Your task to perform on an android device: refresh tabs in the chrome app Image 0: 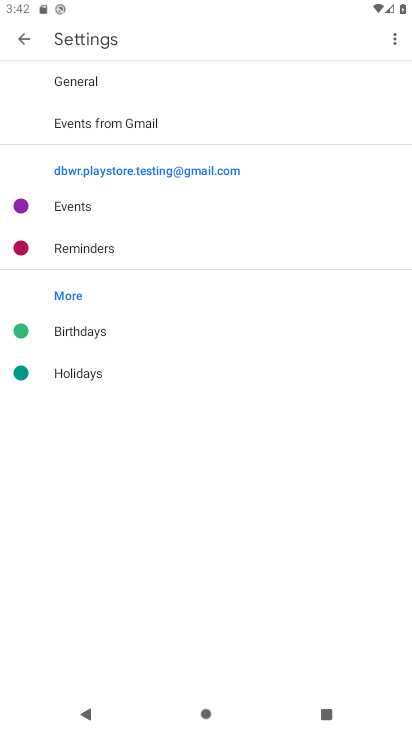
Step 0: press home button
Your task to perform on an android device: refresh tabs in the chrome app Image 1: 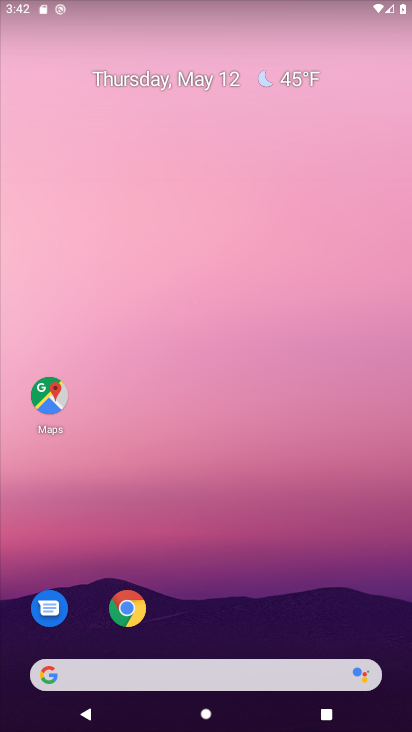
Step 1: drag from (222, 564) to (242, 105)
Your task to perform on an android device: refresh tabs in the chrome app Image 2: 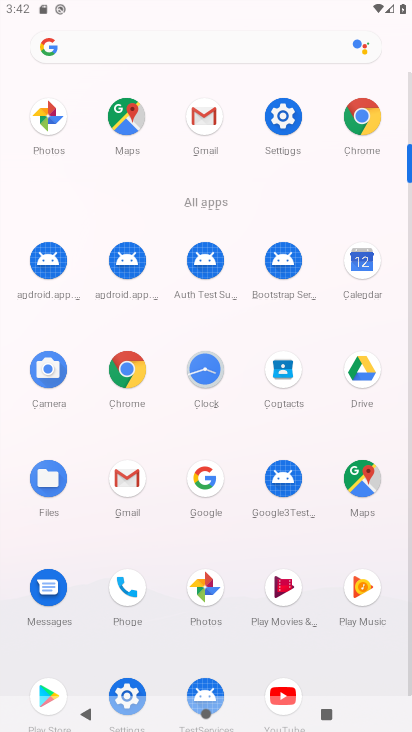
Step 2: click (356, 110)
Your task to perform on an android device: refresh tabs in the chrome app Image 3: 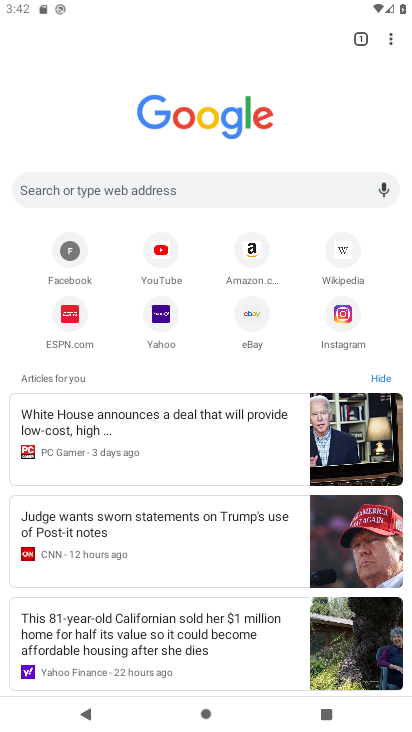
Step 3: click (389, 39)
Your task to perform on an android device: refresh tabs in the chrome app Image 4: 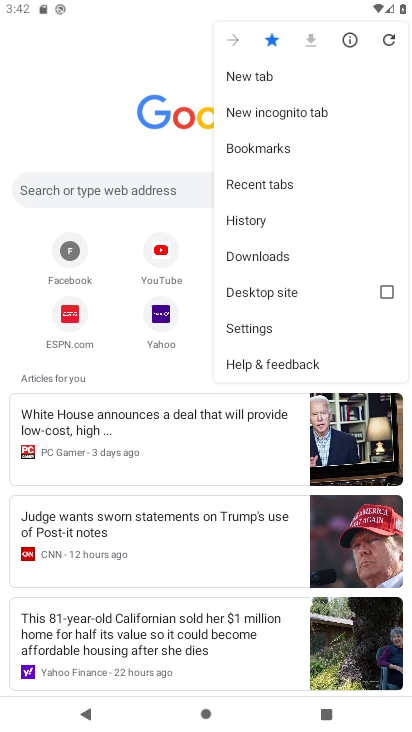
Step 4: click (389, 39)
Your task to perform on an android device: refresh tabs in the chrome app Image 5: 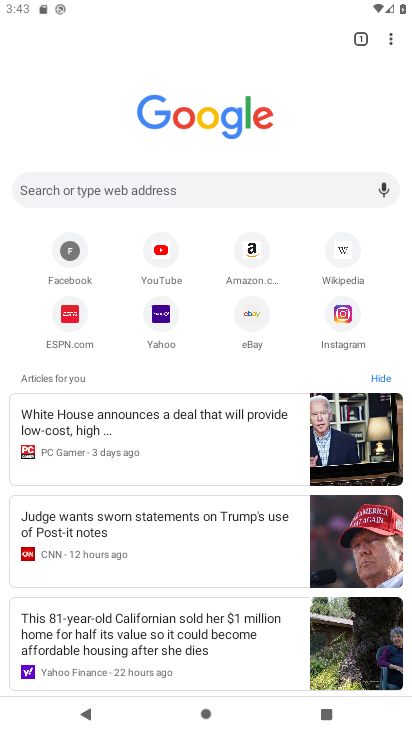
Step 5: task complete